Your task to perform on an android device: create a new album in the google photos Image 0: 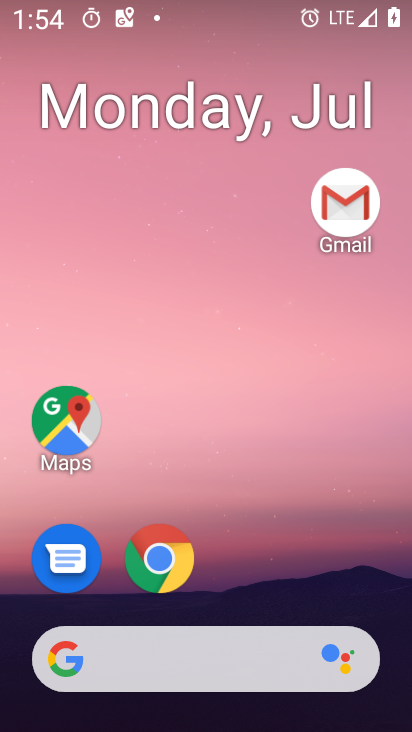
Step 0: drag from (300, 585) to (325, 104)
Your task to perform on an android device: create a new album in the google photos Image 1: 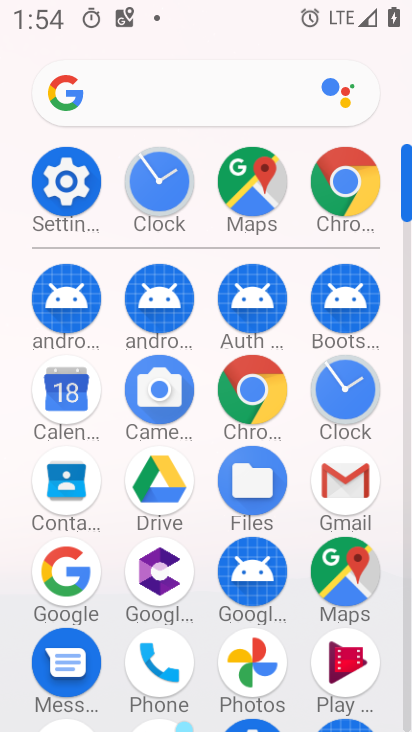
Step 1: click (252, 656)
Your task to perform on an android device: create a new album in the google photos Image 2: 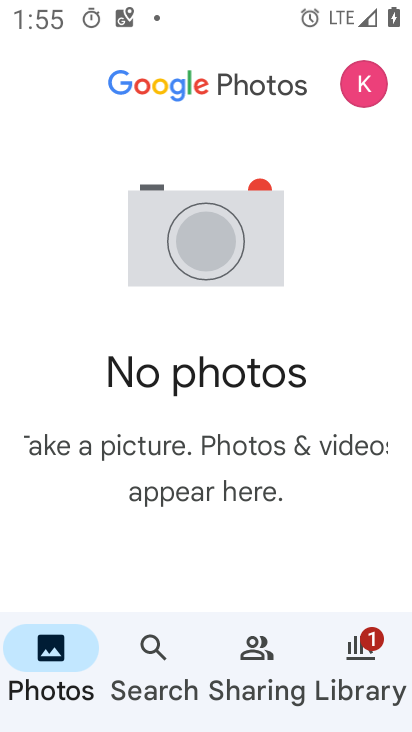
Step 2: click (362, 655)
Your task to perform on an android device: create a new album in the google photos Image 3: 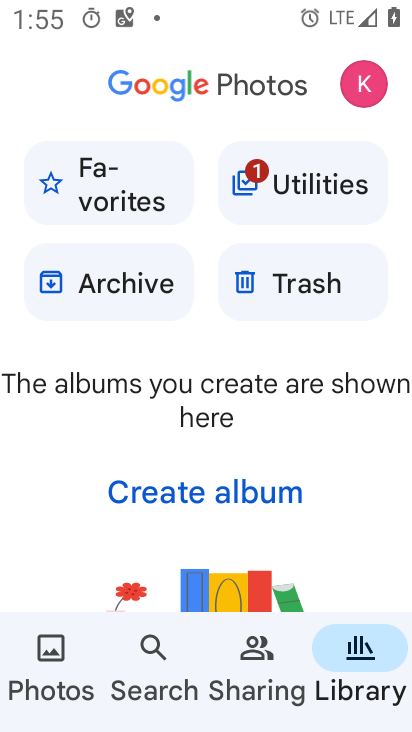
Step 3: click (266, 500)
Your task to perform on an android device: create a new album in the google photos Image 4: 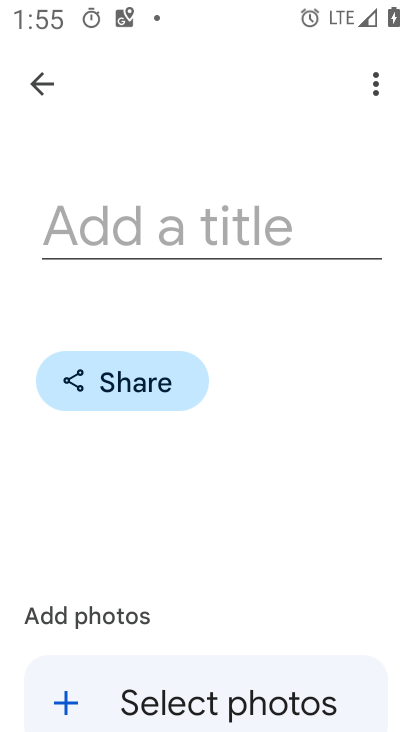
Step 4: click (284, 247)
Your task to perform on an android device: create a new album in the google photos Image 5: 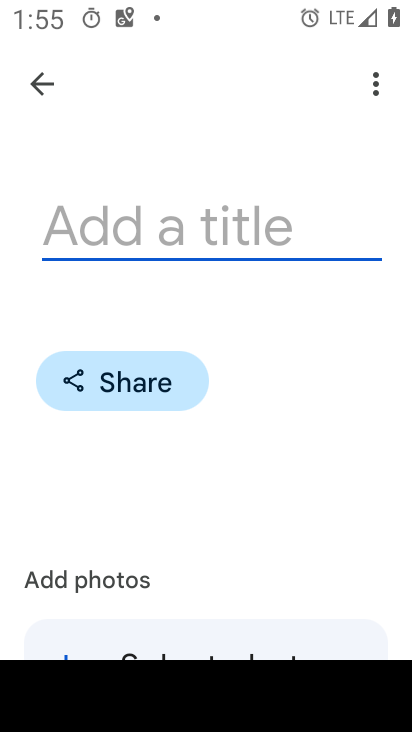
Step 5: type "fav"
Your task to perform on an android device: create a new album in the google photos Image 6: 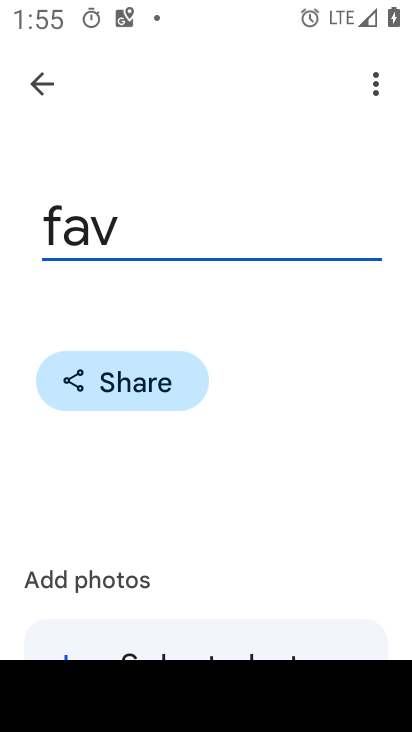
Step 6: drag from (313, 444) to (324, 305)
Your task to perform on an android device: create a new album in the google photos Image 7: 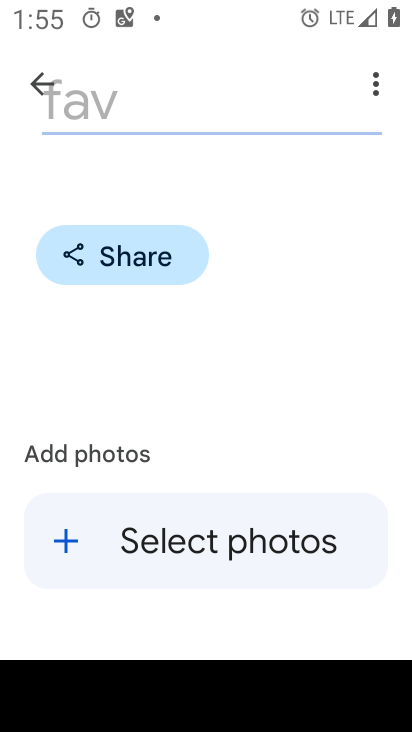
Step 7: click (310, 532)
Your task to perform on an android device: create a new album in the google photos Image 8: 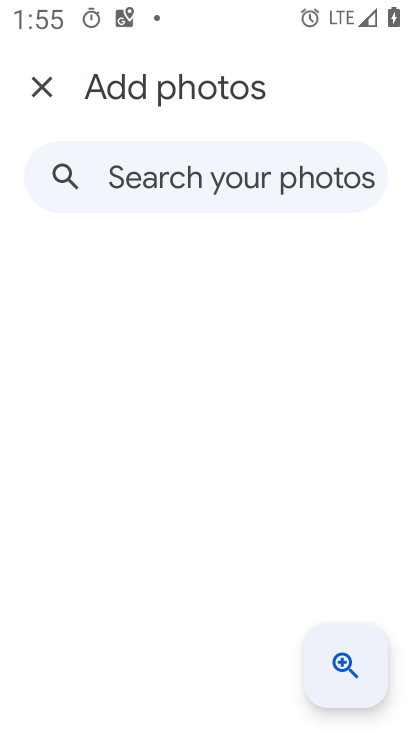
Step 8: task complete